Your task to perform on an android device: turn vacation reply on in the gmail app Image 0: 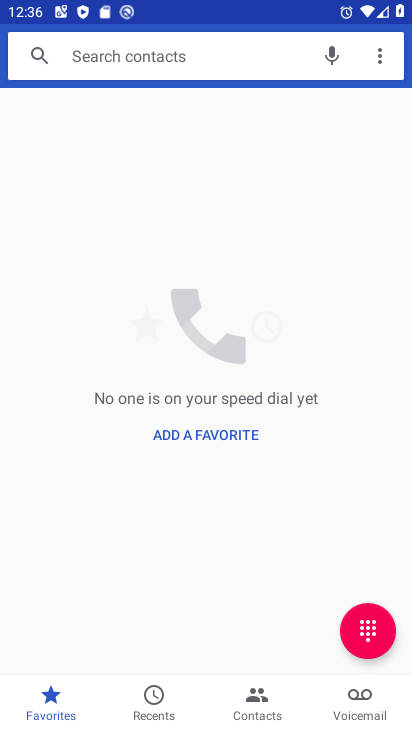
Step 0: press back button
Your task to perform on an android device: turn vacation reply on in the gmail app Image 1: 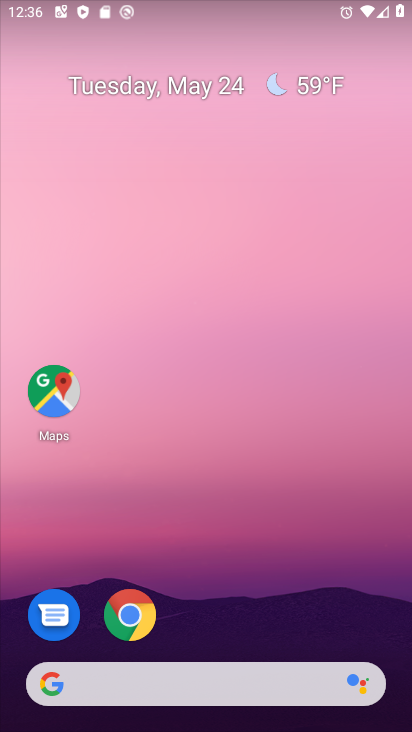
Step 1: drag from (280, 614) to (217, 17)
Your task to perform on an android device: turn vacation reply on in the gmail app Image 2: 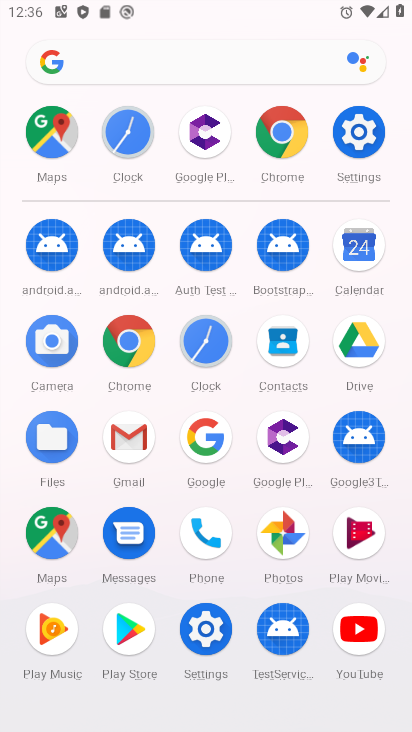
Step 2: click (127, 429)
Your task to perform on an android device: turn vacation reply on in the gmail app Image 3: 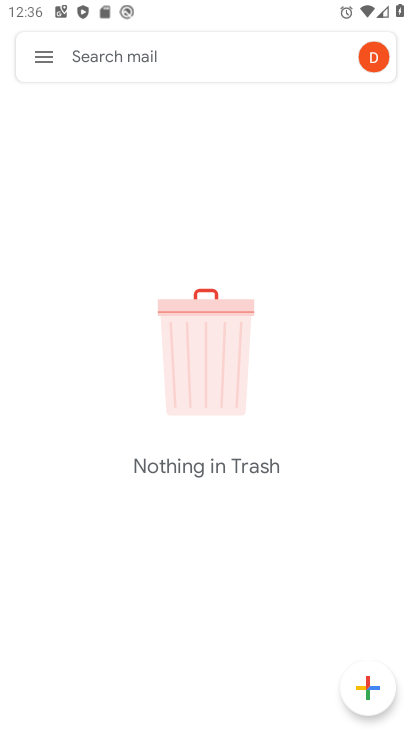
Step 3: click (51, 54)
Your task to perform on an android device: turn vacation reply on in the gmail app Image 4: 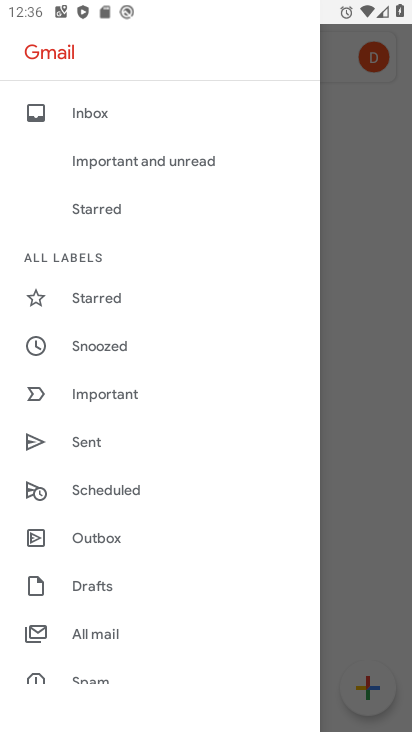
Step 4: drag from (228, 619) to (189, 63)
Your task to perform on an android device: turn vacation reply on in the gmail app Image 5: 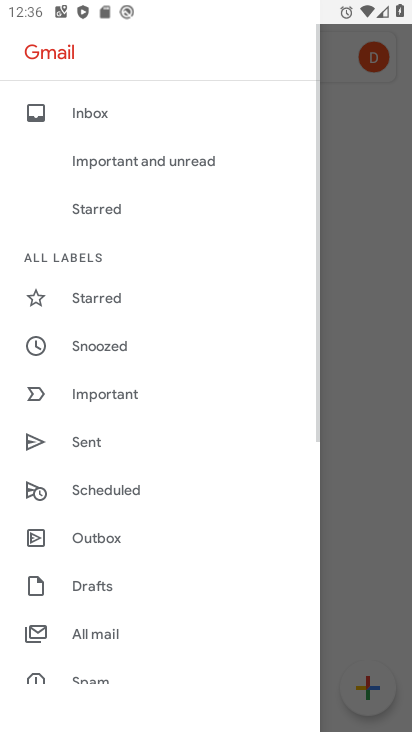
Step 5: drag from (157, 637) to (157, 259)
Your task to perform on an android device: turn vacation reply on in the gmail app Image 6: 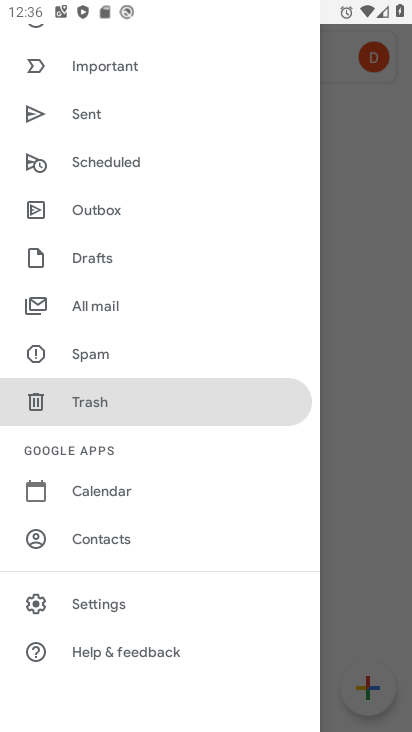
Step 6: click (107, 594)
Your task to perform on an android device: turn vacation reply on in the gmail app Image 7: 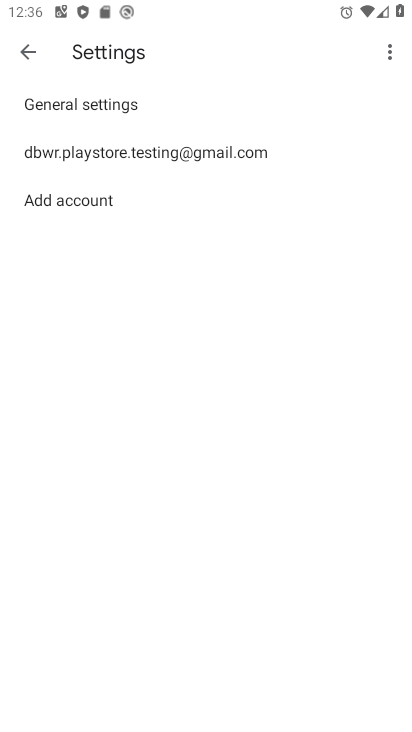
Step 7: click (175, 144)
Your task to perform on an android device: turn vacation reply on in the gmail app Image 8: 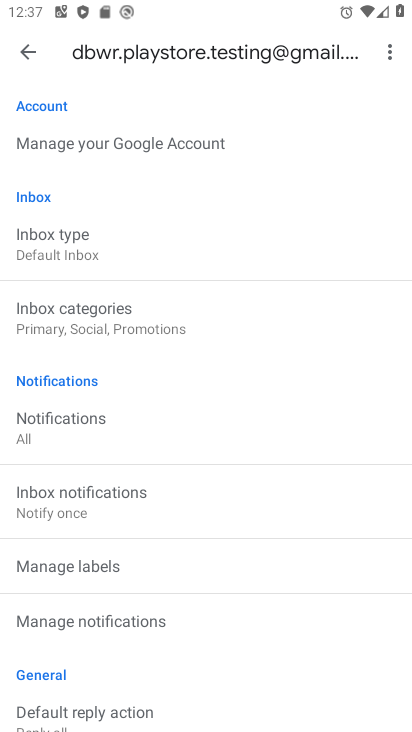
Step 8: task complete